Your task to perform on an android device: turn off improve location accuracy Image 0: 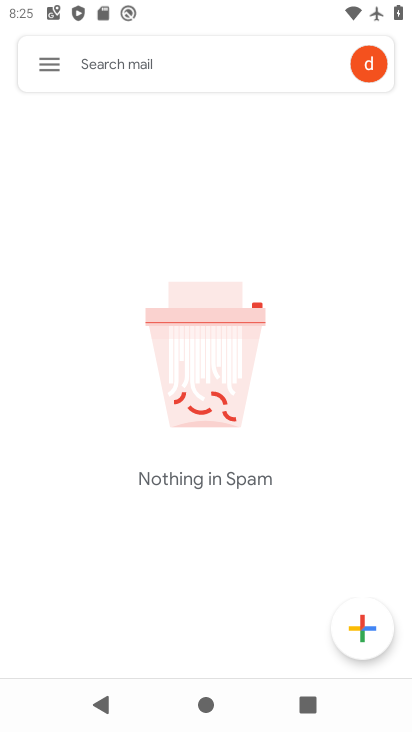
Step 0: press home button
Your task to perform on an android device: turn off improve location accuracy Image 1: 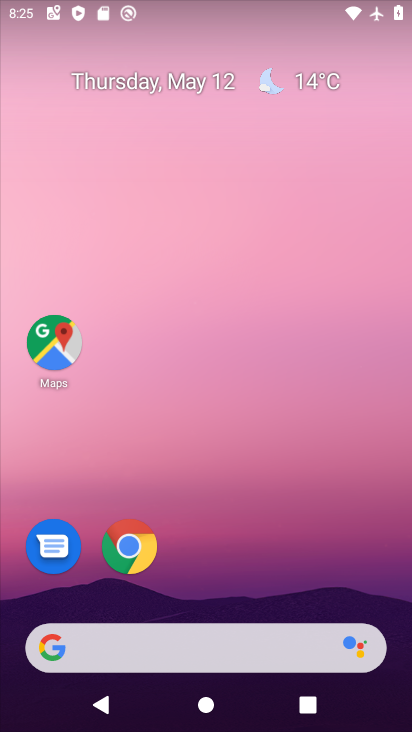
Step 1: drag from (180, 657) to (190, 93)
Your task to perform on an android device: turn off improve location accuracy Image 2: 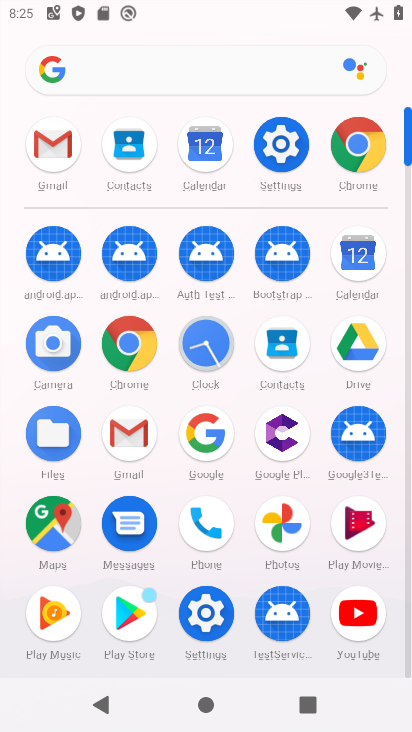
Step 2: click (281, 155)
Your task to perform on an android device: turn off improve location accuracy Image 3: 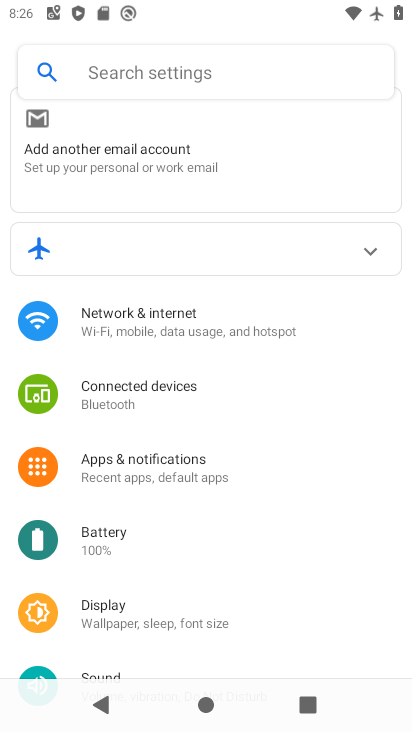
Step 3: drag from (224, 433) to (314, 135)
Your task to perform on an android device: turn off improve location accuracy Image 4: 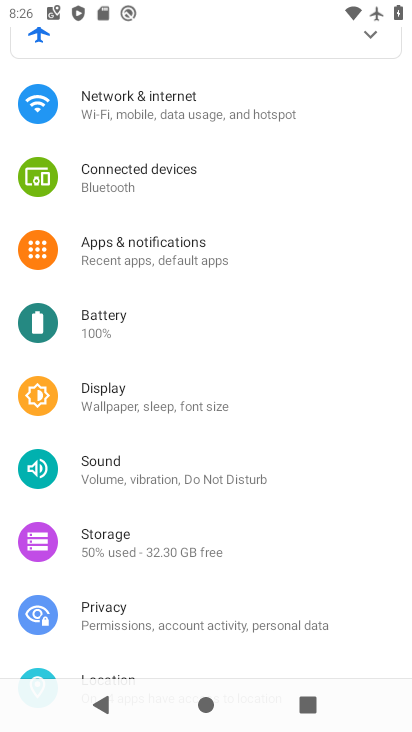
Step 4: drag from (146, 589) to (333, 56)
Your task to perform on an android device: turn off improve location accuracy Image 5: 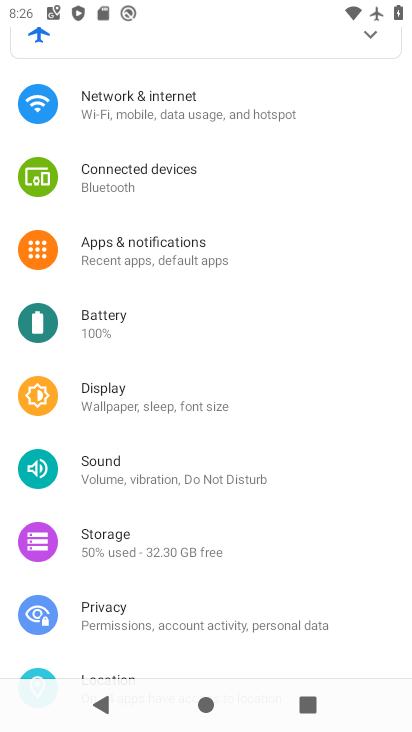
Step 5: drag from (216, 649) to (382, 128)
Your task to perform on an android device: turn off improve location accuracy Image 6: 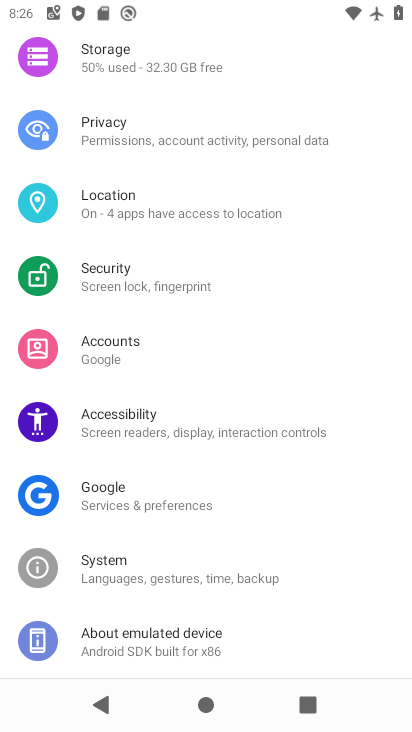
Step 6: click (180, 217)
Your task to perform on an android device: turn off improve location accuracy Image 7: 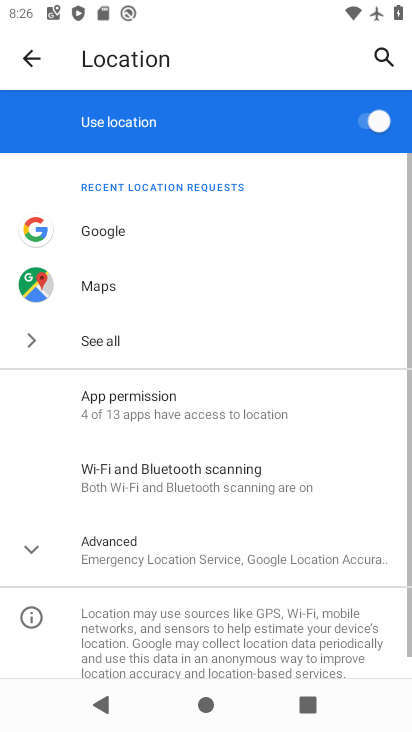
Step 7: click (109, 545)
Your task to perform on an android device: turn off improve location accuracy Image 8: 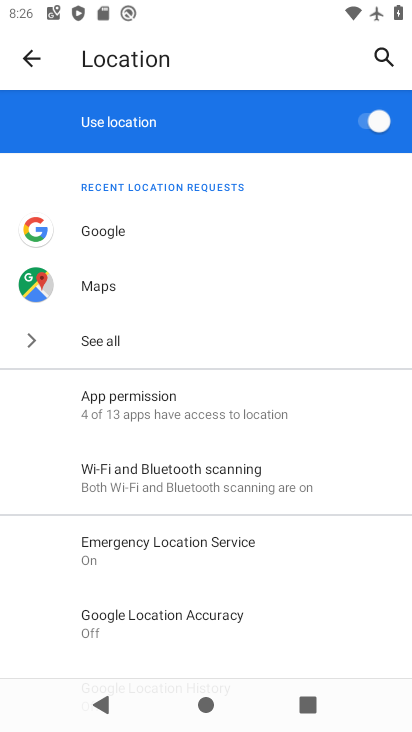
Step 8: drag from (178, 566) to (347, 375)
Your task to perform on an android device: turn off improve location accuracy Image 9: 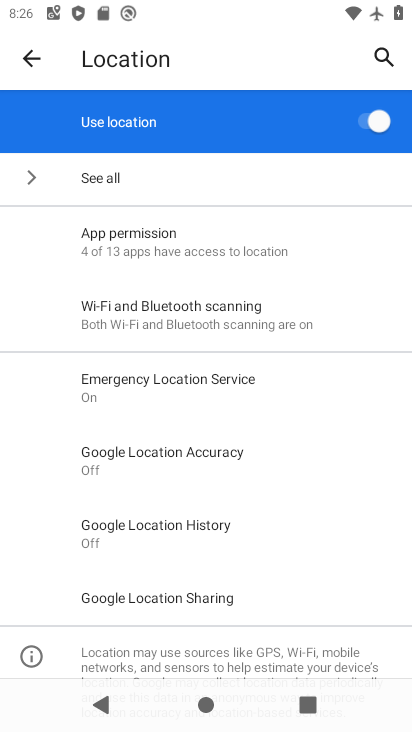
Step 9: click (217, 458)
Your task to perform on an android device: turn off improve location accuracy Image 10: 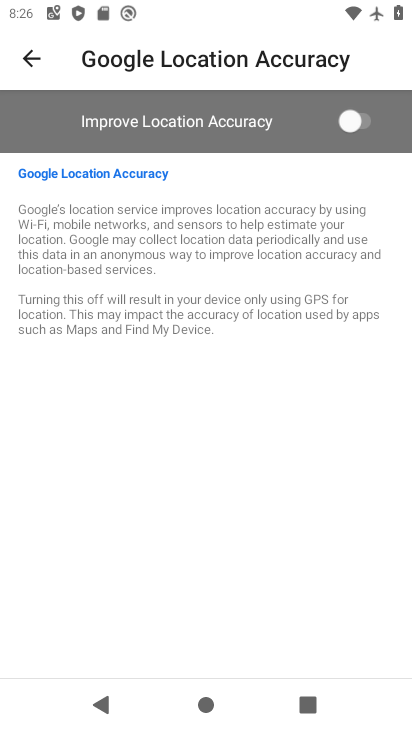
Step 10: click (390, 382)
Your task to perform on an android device: turn off improve location accuracy Image 11: 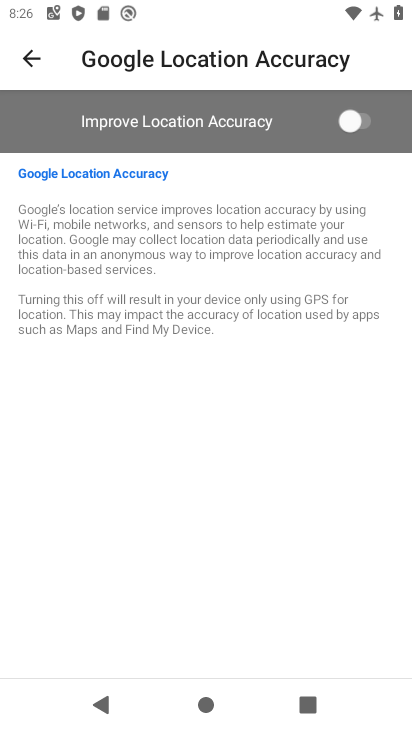
Step 11: task complete